Your task to perform on an android device: Open maps Image 0: 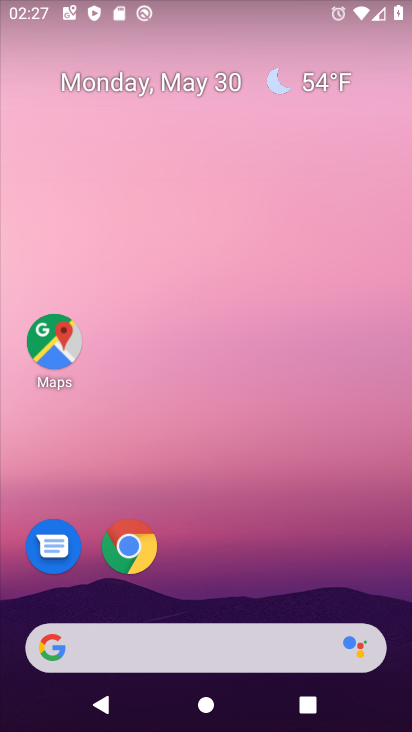
Step 0: press home button
Your task to perform on an android device: Open maps Image 1: 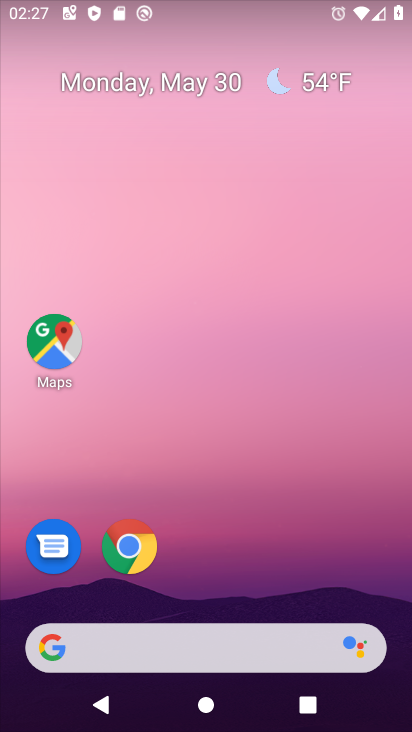
Step 1: click (54, 342)
Your task to perform on an android device: Open maps Image 2: 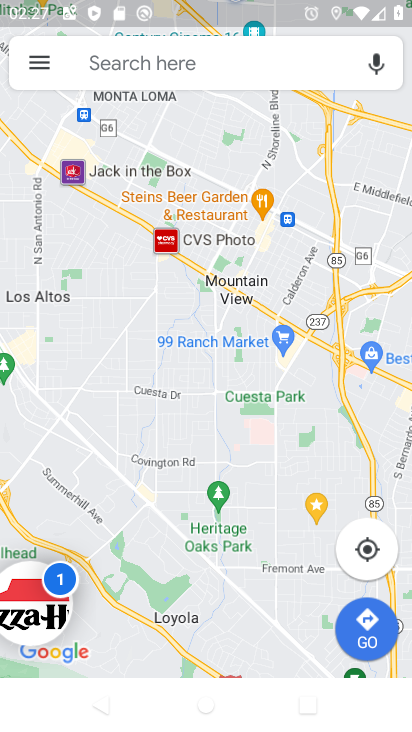
Step 2: task complete